Your task to perform on an android device: Open settings Image 0: 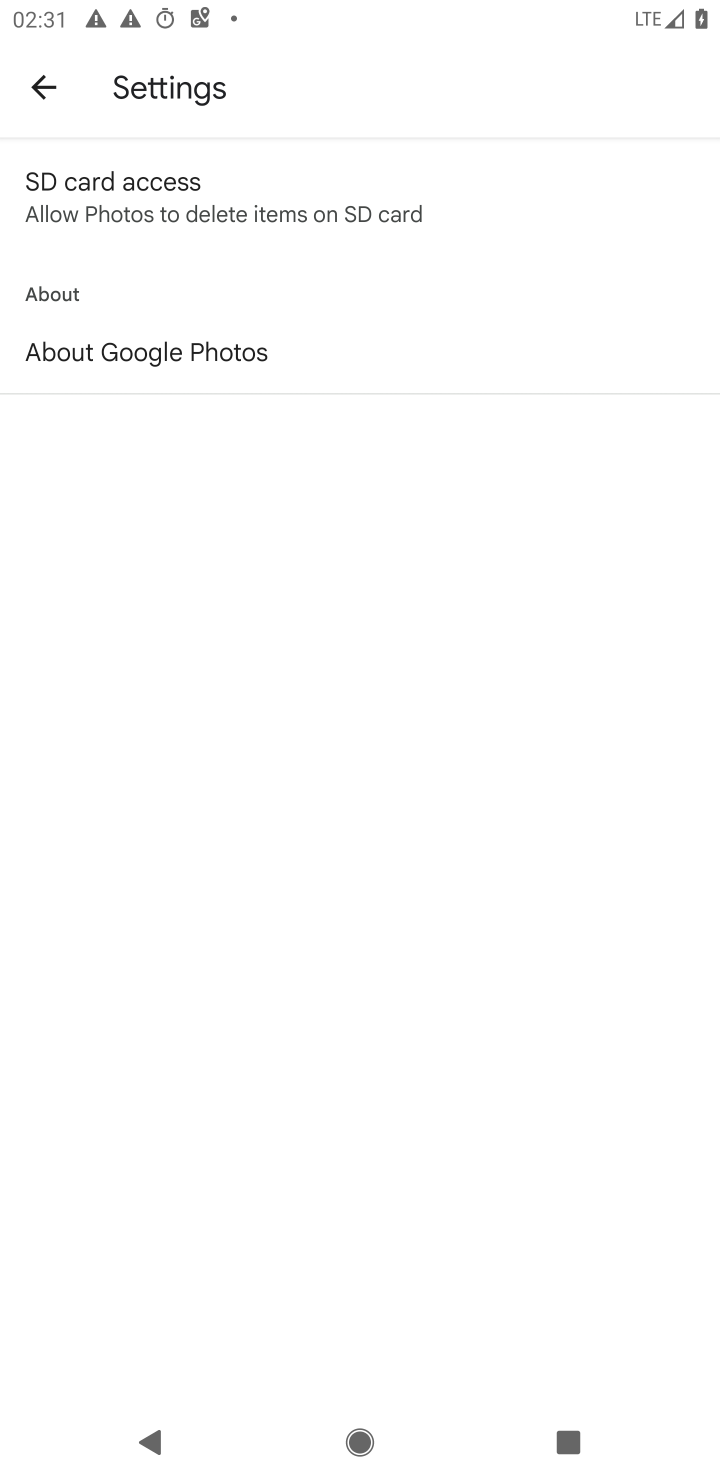
Step 0: task complete